Your task to perform on an android device: Open the calendar and show me this week's events? Image 0: 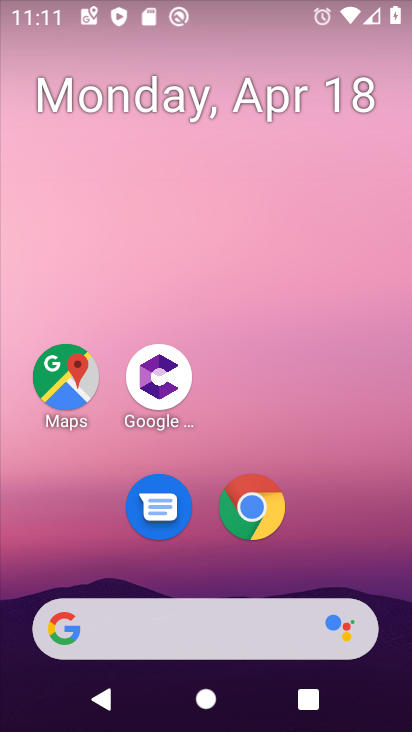
Step 0: drag from (240, 664) to (193, 249)
Your task to perform on an android device: Open the calendar and show me this week's events? Image 1: 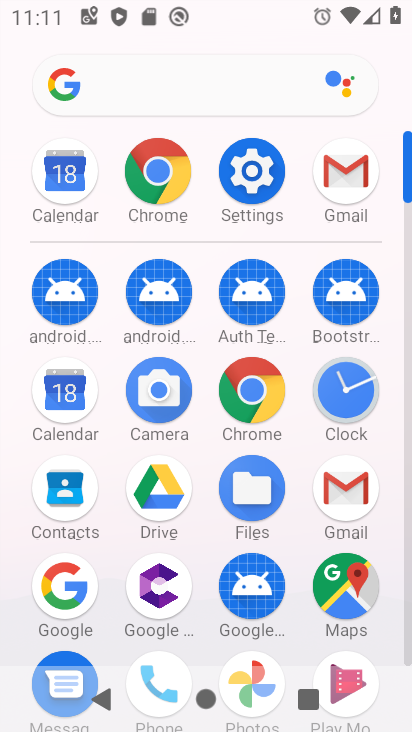
Step 1: click (60, 186)
Your task to perform on an android device: Open the calendar and show me this week's events? Image 2: 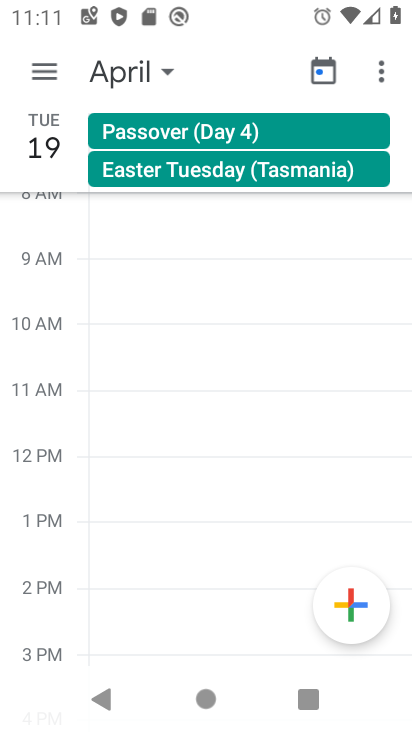
Step 2: click (45, 76)
Your task to perform on an android device: Open the calendar and show me this week's events? Image 3: 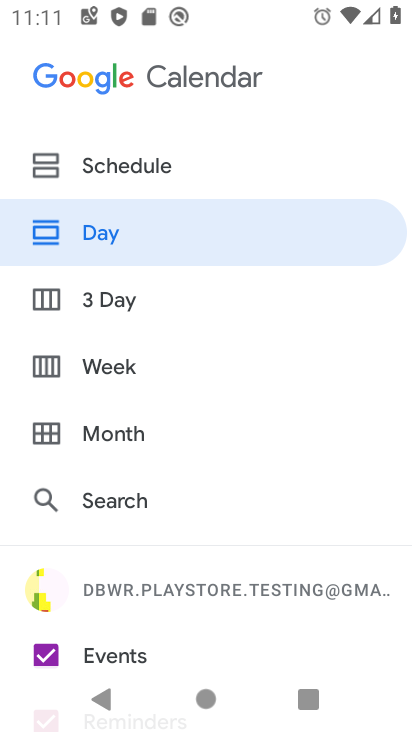
Step 3: click (115, 357)
Your task to perform on an android device: Open the calendar and show me this week's events? Image 4: 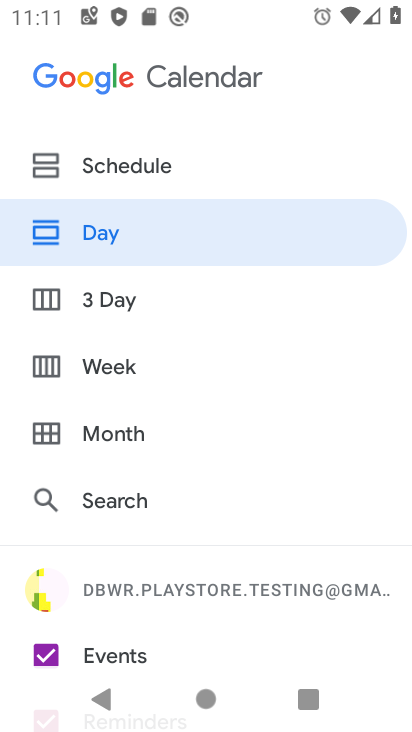
Step 4: click (113, 372)
Your task to perform on an android device: Open the calendar and show me this week's events? Image 5: 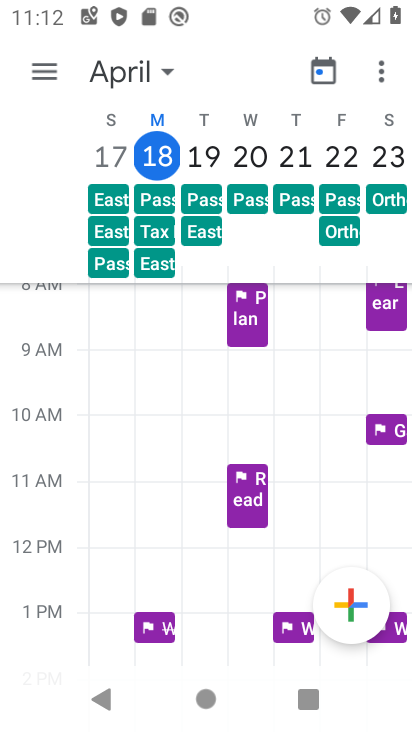
Step 5: task complete